Your task to perform on an android device: What is the news today? Image 0: 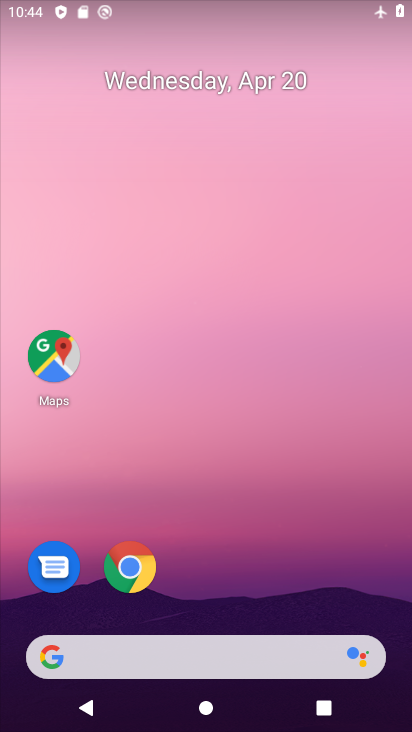
Step 0: drag from (288, 561) to (351, 317)
Your task to perform on an android device: What is the news today? Image 1: 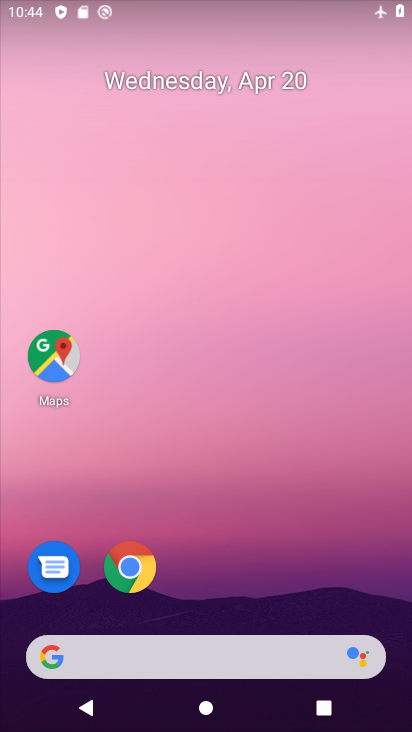
Step 1: drag from (254, 396) to (280, 255)
Your task to perform on an android device: What is the news today? Image 2: 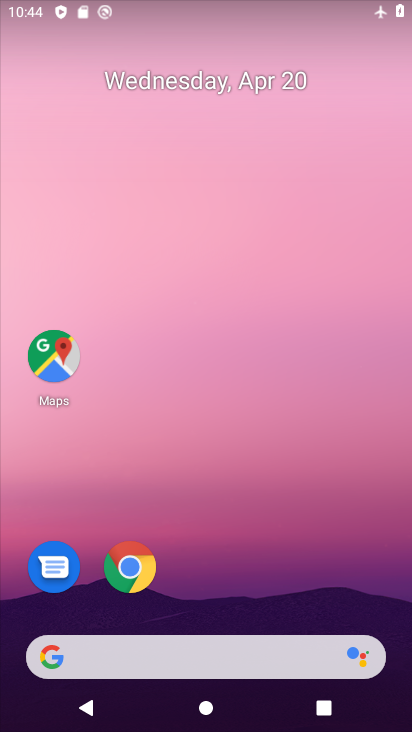
Step 2: click (277, 262)
Your task to perform on an android device: What is the news today? Image 3: 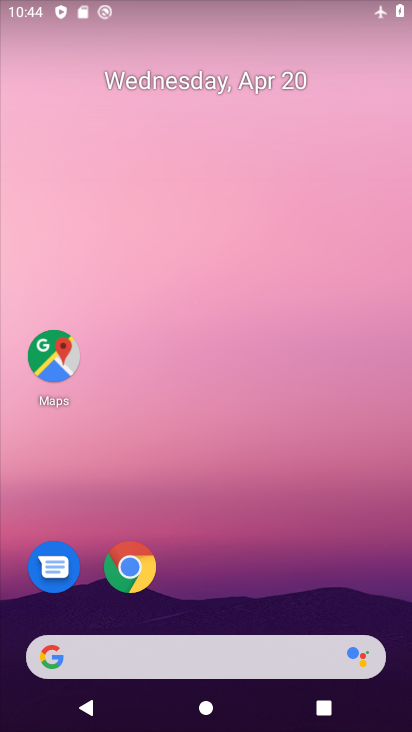
Step 3: click (255, 281)
Your task to perform on an android device: What is the news today? Image 4: 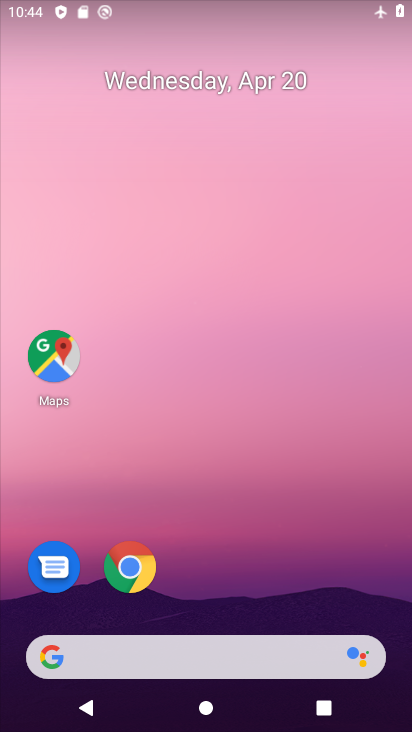
Step 4: drag from (210, 554) to (261, 161)
Your task to perform on an android device: What is the news today? Image 5: 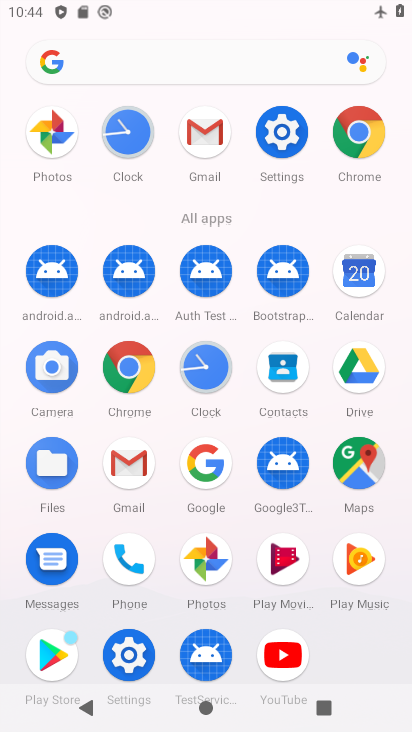
Step 5: click (127, 354)
Your task to perform on an android device: What is the news today? Image 6: 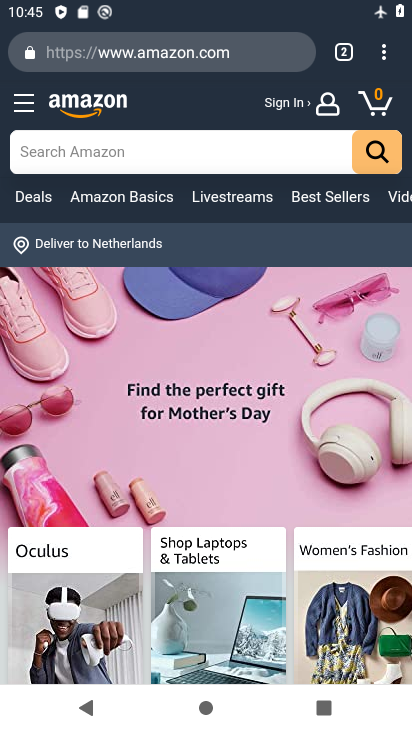
Step 6: click (383, 58)
Your task to perform on an android device: What is the news today? Image 7: 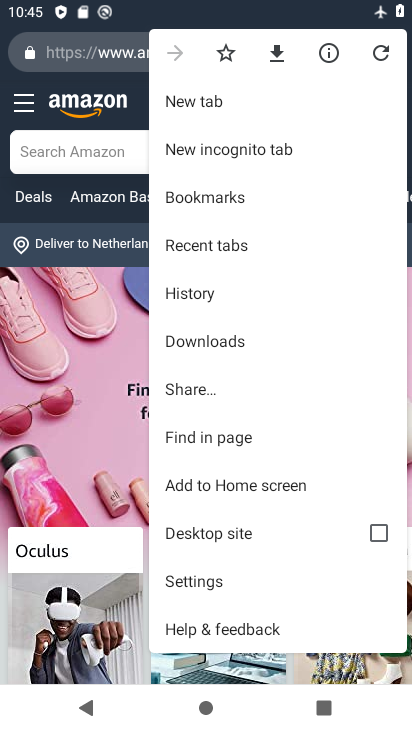
Step 7: click (262, 100)
Your task to perform on an android device: What is the news today? Image 8: 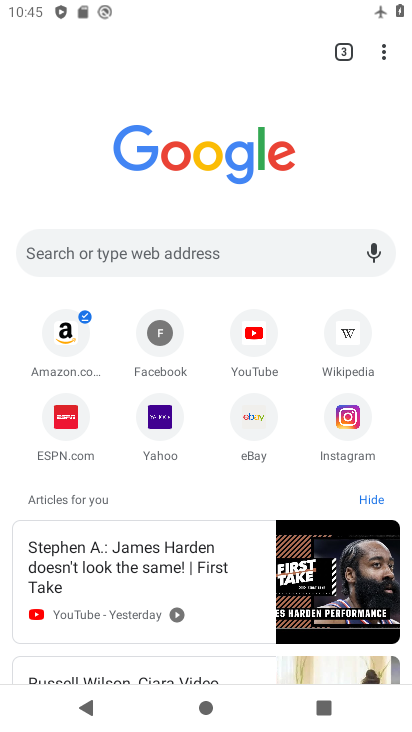
Step 8: click (172, 252)
Your task to perform on an android device: What is the news today? Image 9: 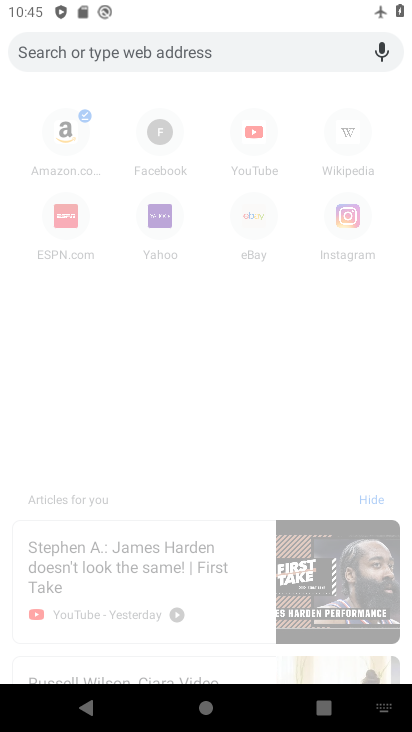
Step 9: click (245, 54)
Your task to perform on an android device: What is the news today? Image 10: 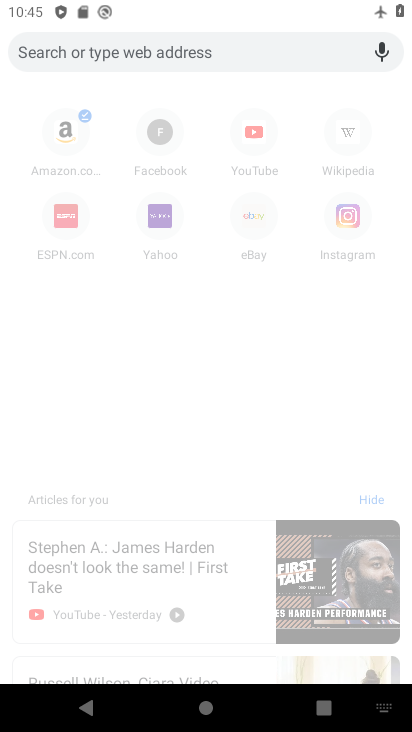
Step 10: type "What is the news today?"
Your task to perform on an android device: What is the news today? Image 11: 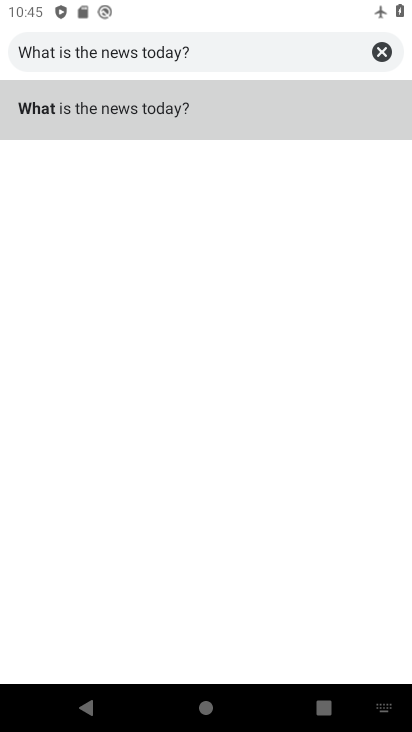
Step 11: click (71, 112)
Your task to perform on an android device: What is the news today? Image 12: 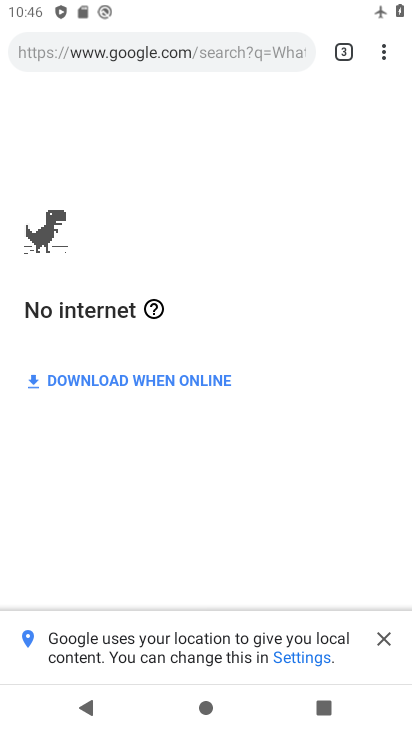
Step 12: task complete